Your task to perform on an android device: delete a single message in the gmail app Image 0: 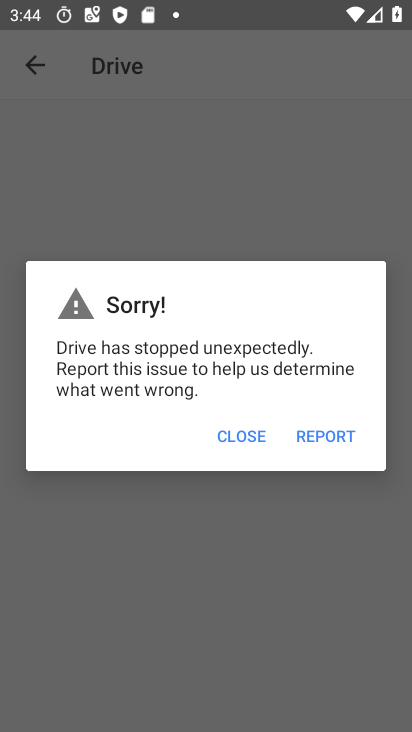
Step 0: press home button
Your task to perform on an android device: delete a single message in the gmail app Image 1: 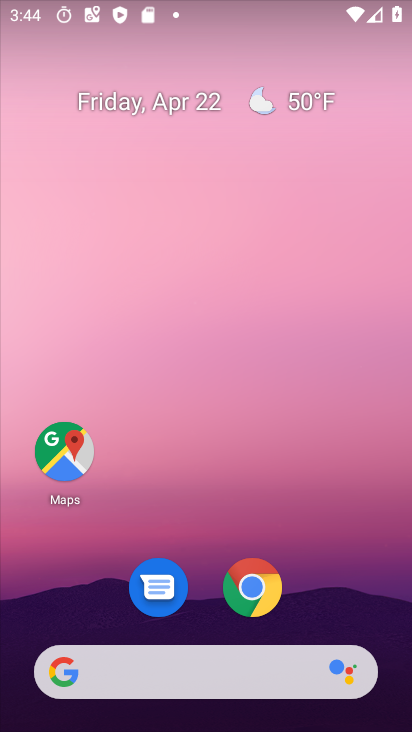
Step 1: drag from (364, 635) to (365, 8)
Your task to perform on an android device: delete a single message in the gmail app Image 2: 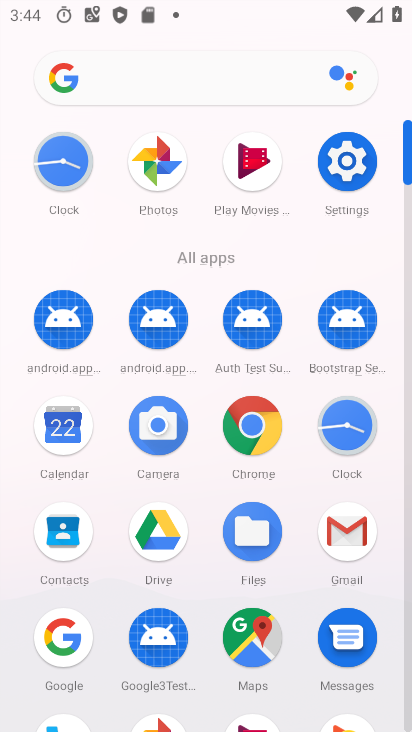
Step 2: click (360, 536)
Your task to perform on an android device: delete a single message in the gmail app Image 3: 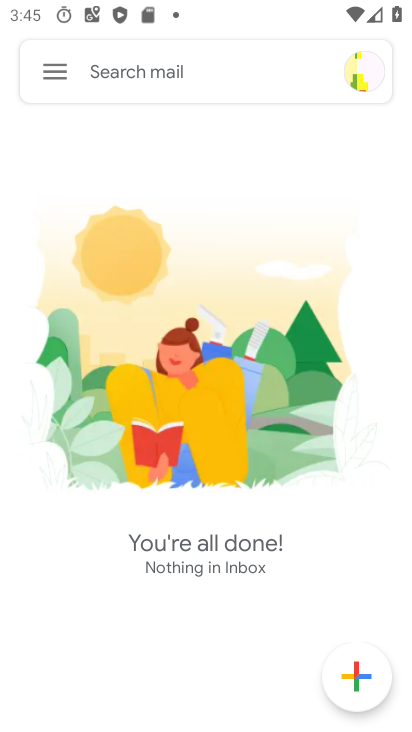
Step 3: click (50, 70)
Your task to perform on an android device: delete a single message in the gmail app Image 4: 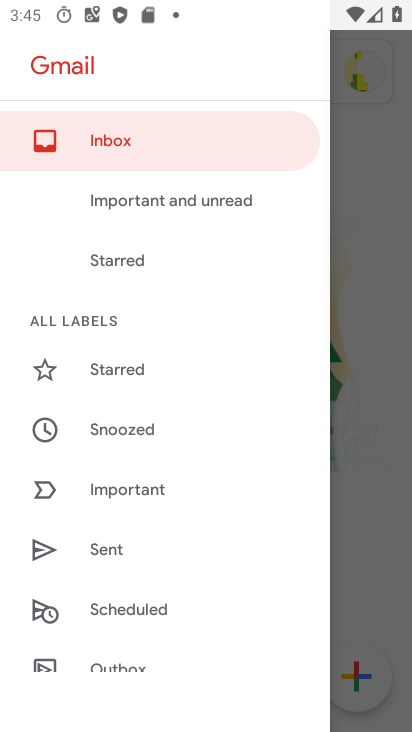
Step 4: drag from (156, 503) to (163, 267)
Your task to perform on an android device: delete a single message in the gmail app Image 5: 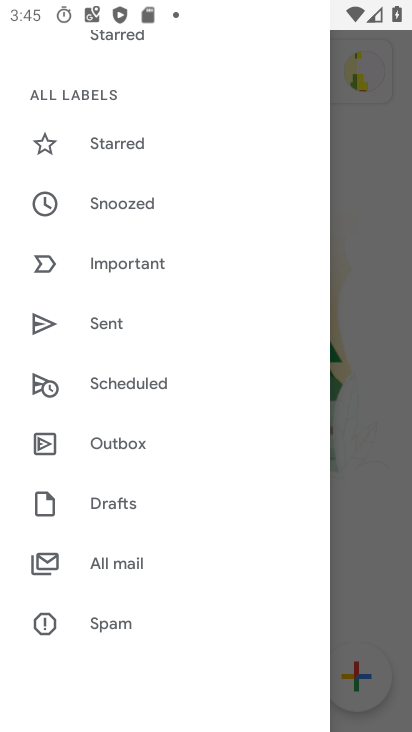
Step 5: click (99, 563)
Your task to perform on an android device: delete a single message in the gmail app Image 6: 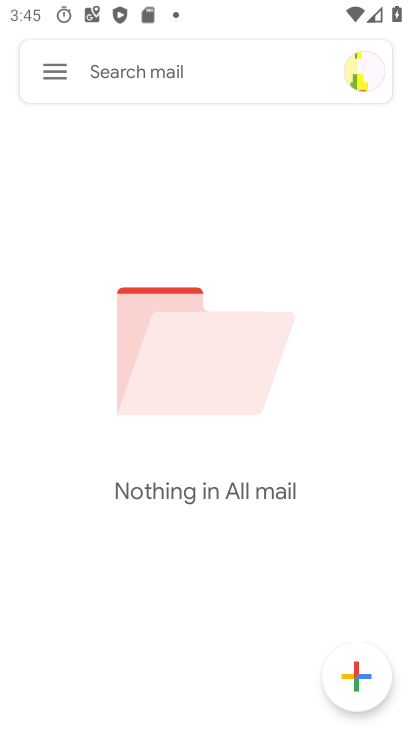
Step 6: task complete